Your task to perform on an android device: toggle pop-ups in chrome Image 0: 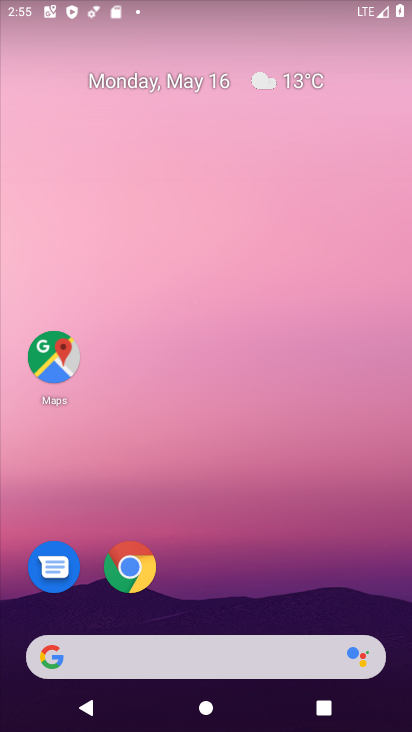
Step 0: click (129, 566)
Your task to perform on an android device: toggle pop-ups in chrome Image 1: 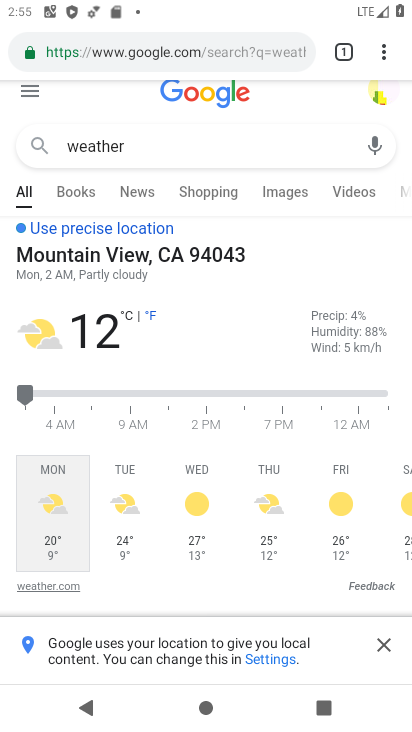
Step 1: drag from (388, 50) to (268, 610)
Your task to perform on an android device: toggle pop-ups in chrome Image 2: 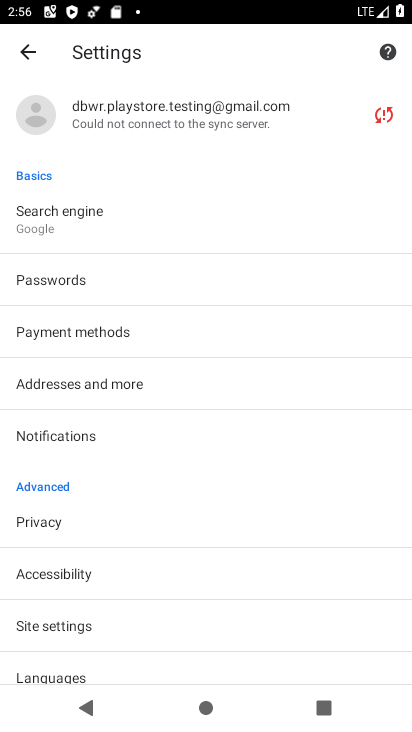
Step 2: click (66, 607)
Your task to perform on an android device: toggle pop-ups in chrome Image 3: 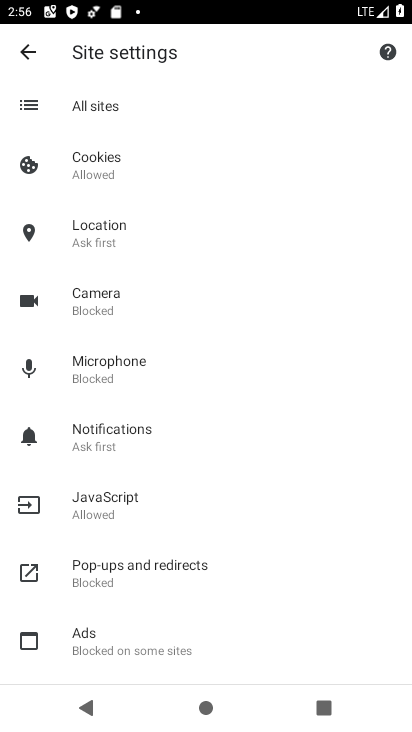
Step 3: click (134, 575)
Your task to perform on an android device: toggle pop-ups in chrome Image 4: 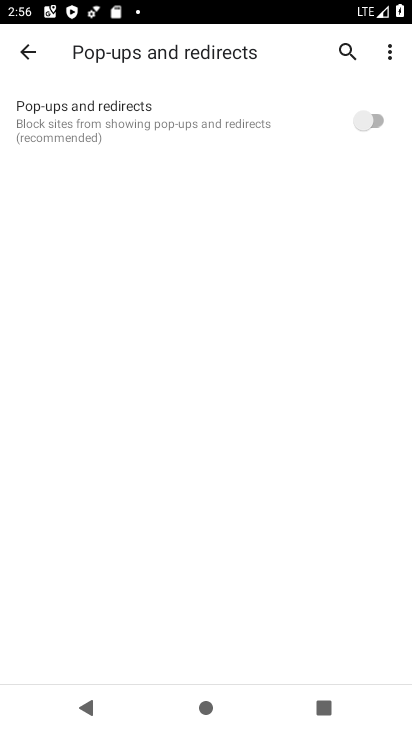
Step 4: click (355, 129)
Your task to perform on an android device: toggle pop-ups in chrome Image 5: 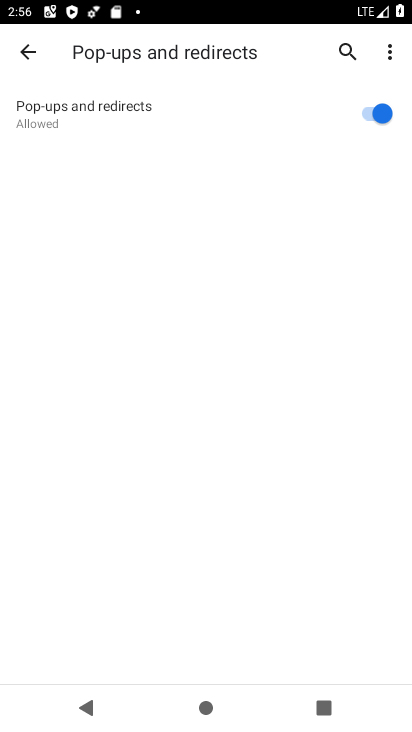
Step 5: task complete